Your task to perform on an android device: set the stopwatch Image 0: 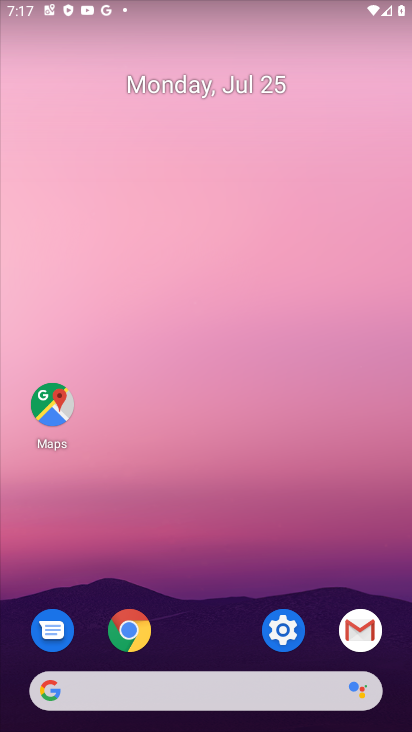
Step 0: drag from (272, 692) to (253, 53)
Your task to perform on an android device: set the stopwatch Image 1: 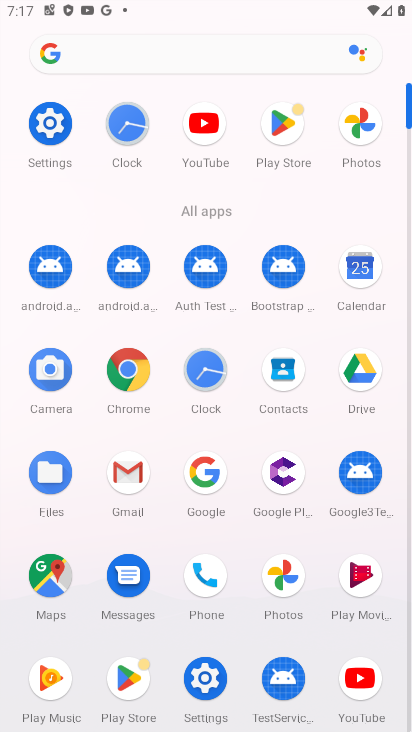
Step 1: click (200, 367)
Your task to perform on an android device: set the stopwatch Image 2: 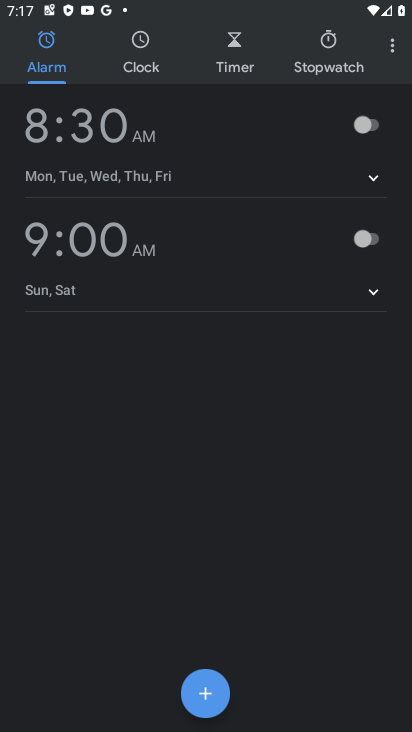
Step 2: click (309, 65)
Your task to perform on an android device: set the stopwatch Image 3: 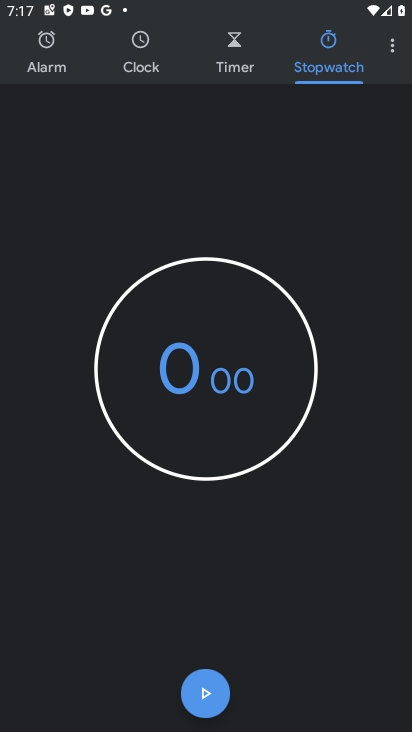
Step 3: click (203, 693)
Your task to perform on an android device: set the stopwatch Image 4: 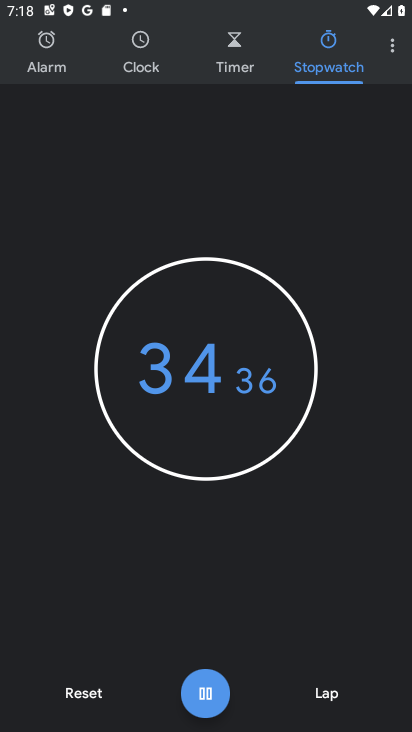
Step 4: click (205, 689)
Your task to perform on an android device: set the stopwatch Image 5: 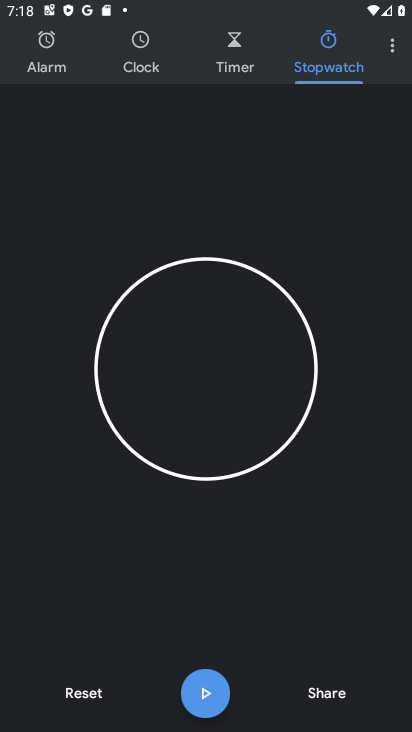
Step 5: task complete